Your task to perform on an android device: check google app version Image 0: 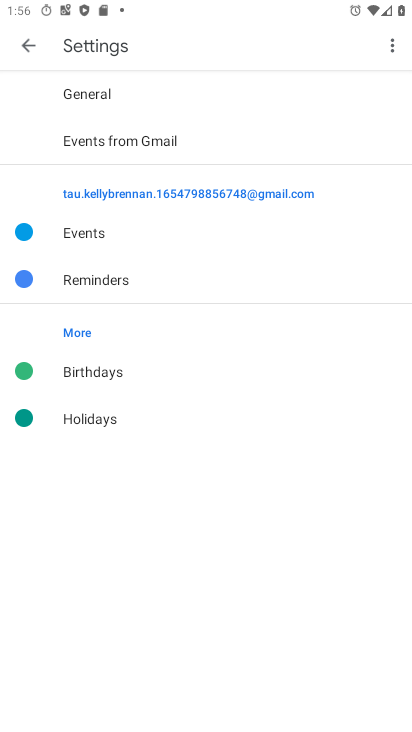
Step 0: press home button
Your task to perform on an android device: check google app version Image 1: 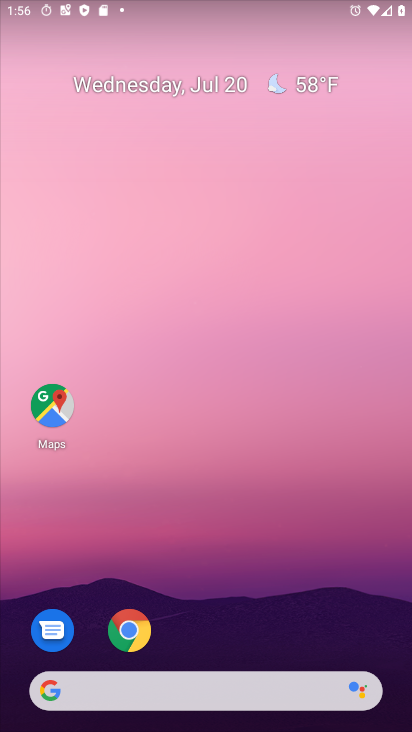
Step 1: drag from (146, 690) to (363, 2)
Your task to perform on an android device: check google app version Image 2: 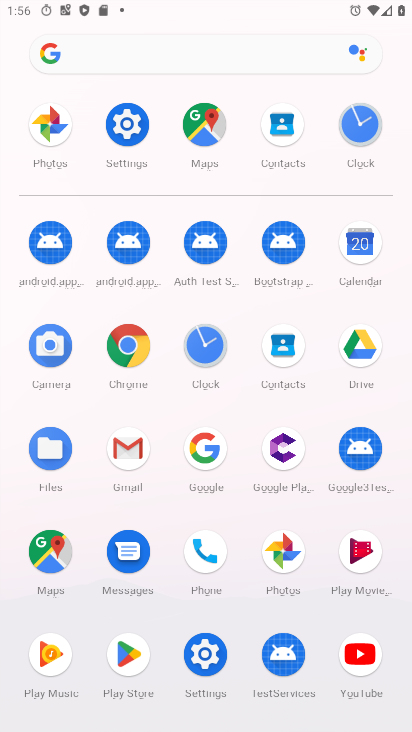
Step 2: click (210, 439)
Your task to perform on an android device: check google app version Image 3: 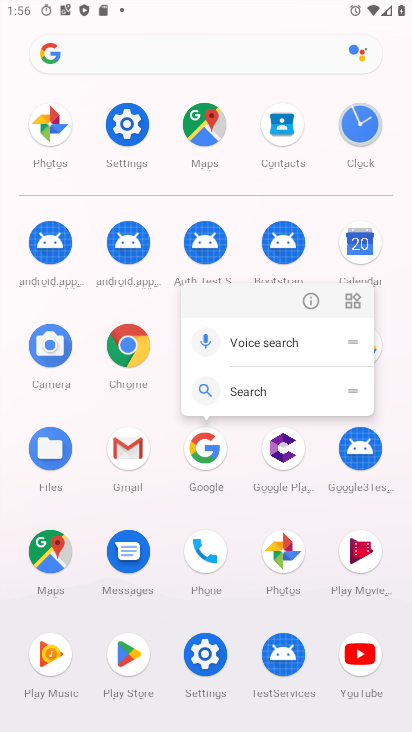
Step 3: click (314, 294)
Your task to perform on an android device: check google app version Image 4: 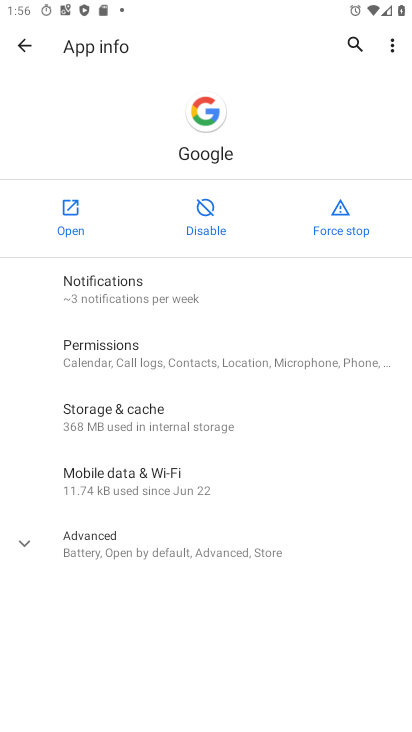
Step 4: click (134, 538)
Your task to perform on an android device: check google app version Image 5: 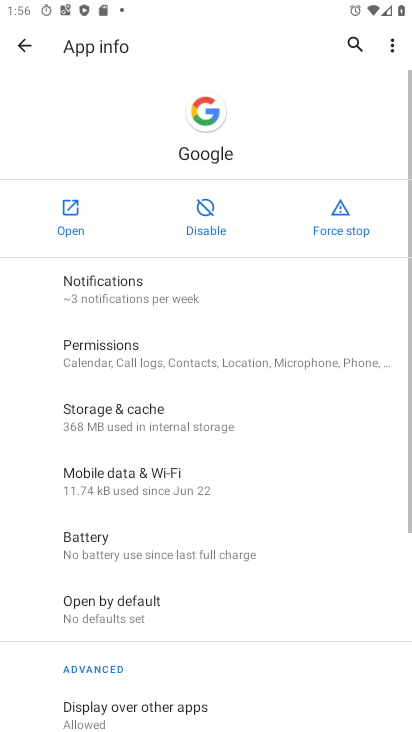
Step 5: task complete